Your task to perform on an android device: Check the weather Image 0: 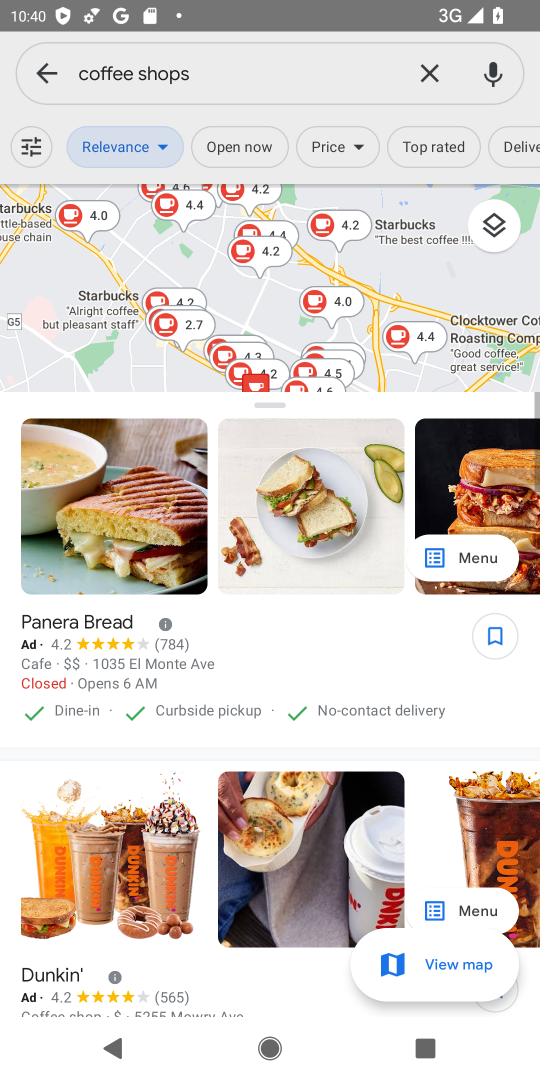
Step 0: press home button
Your task to perform on an android device: Check the weather Image 1: 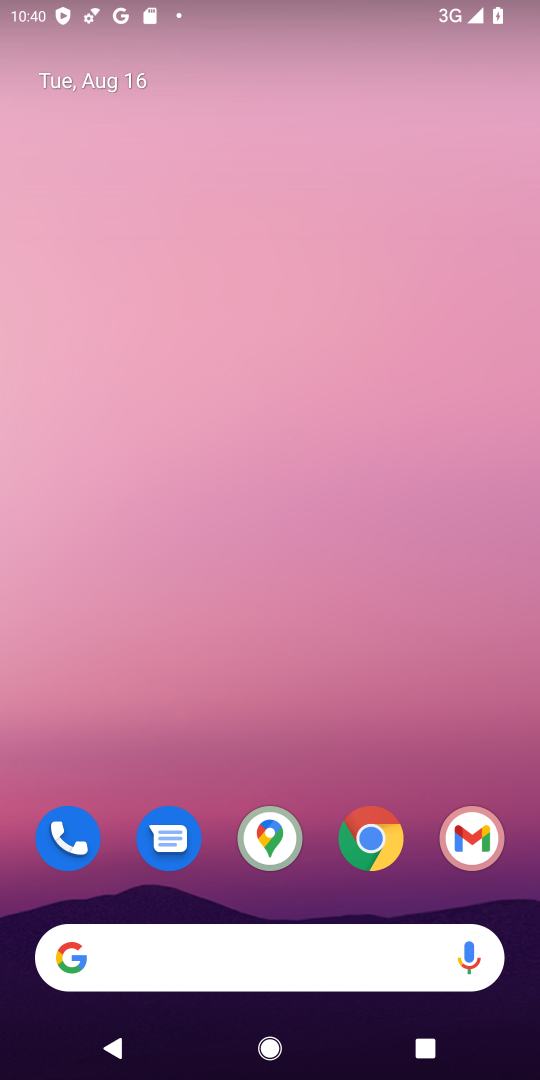
Step 1: click (64, 974)
Your task to perform on an android device: Check the weather Image 2: 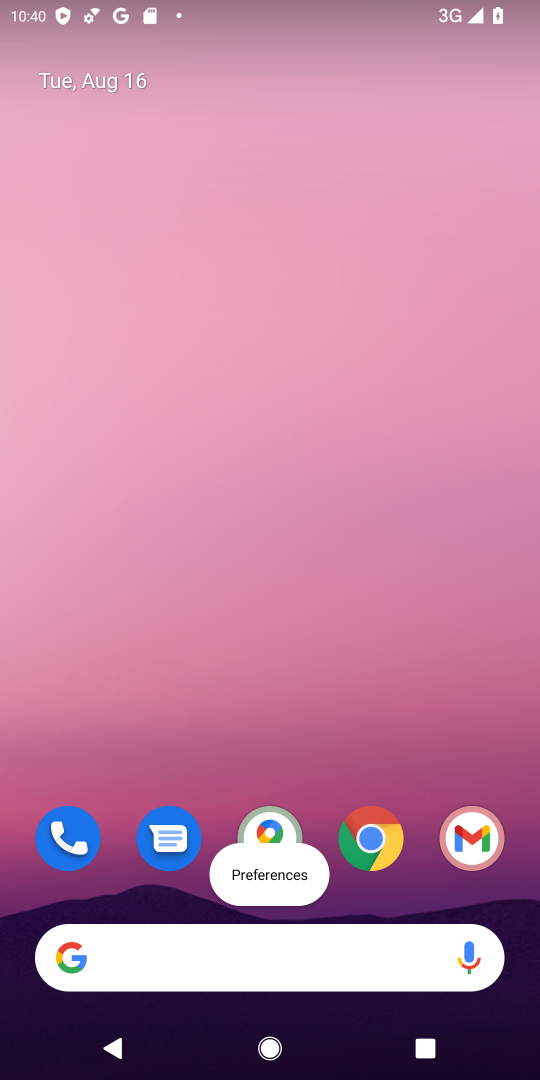
Step 2: click (72, 959)
Your task to perform on an android device: Check the weather Image 3: 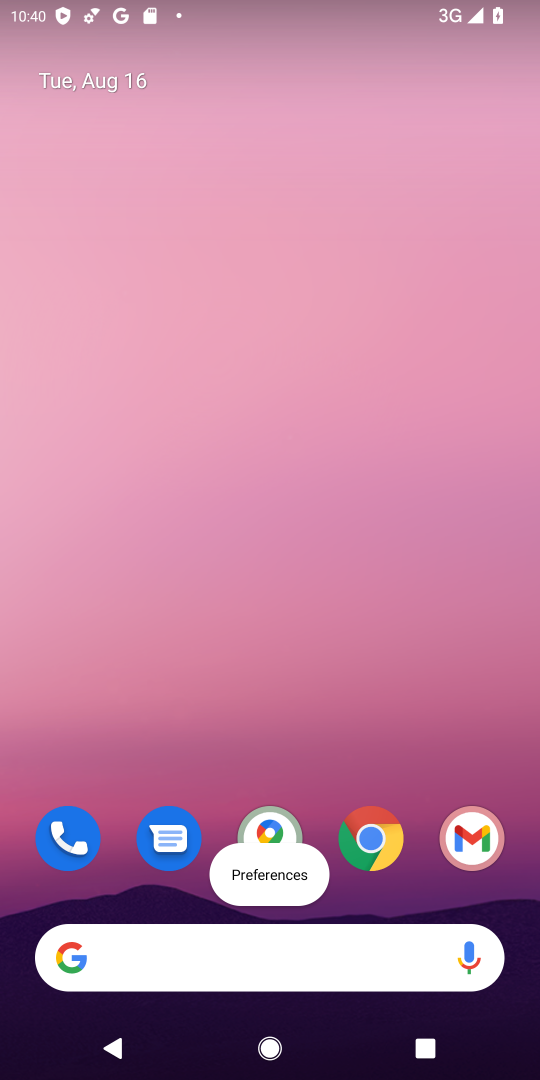
Step 3: click (72, 959)
Your task to perform on an android device: Check the weather Image 4: 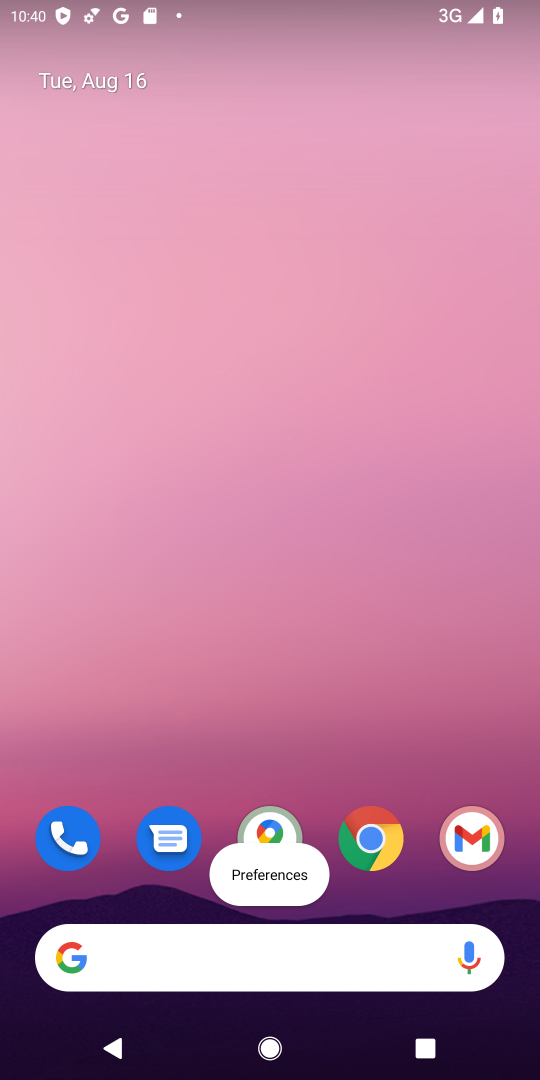
Step 4: click (72, 959)
Your task to perform on an android device: Check the weather Image 5: 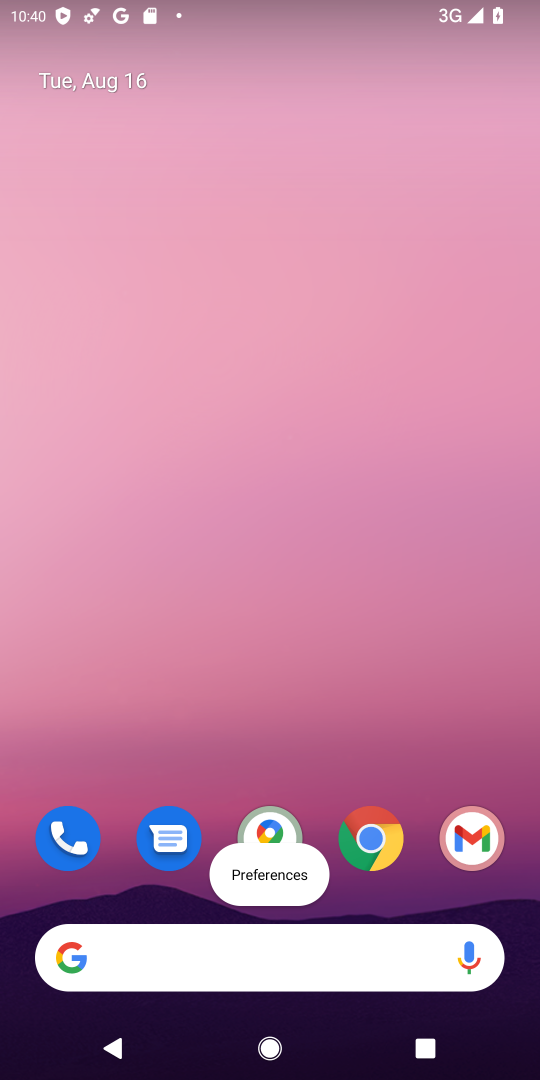
Step 5: click (65, 960)
Your task to perform on an android device: Check the weather Image 6: 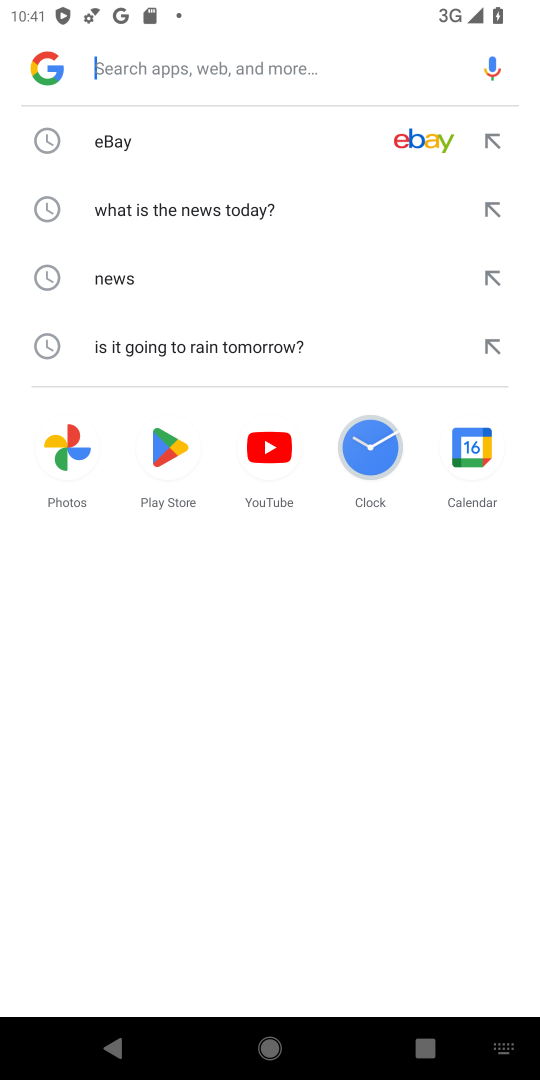
Step 6: type "weather"
Your task to perform on an android device: Check the weather Image 7: 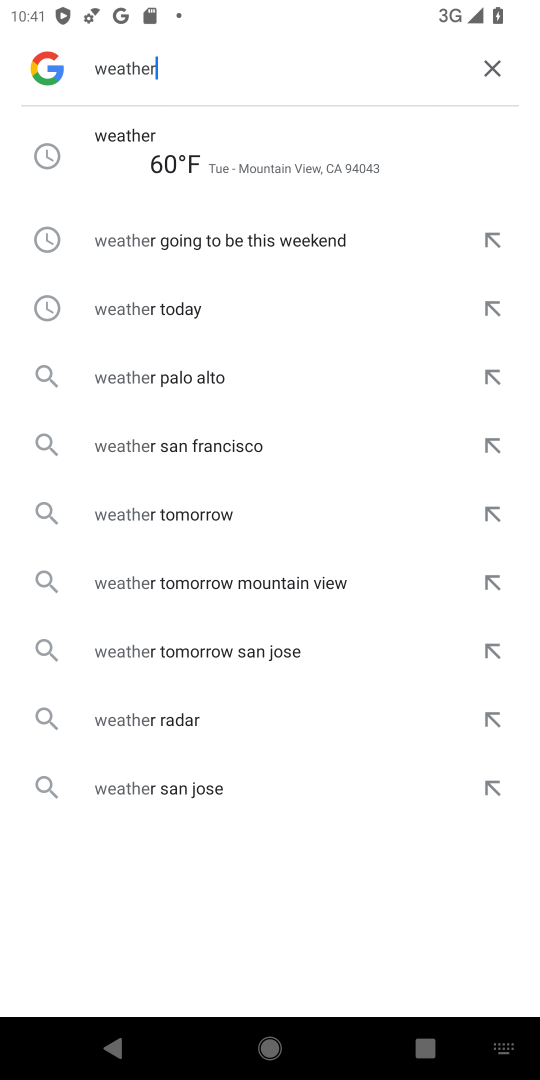
Step 7: press enter
Your task to perform on an android device: Check the weather Image 8: 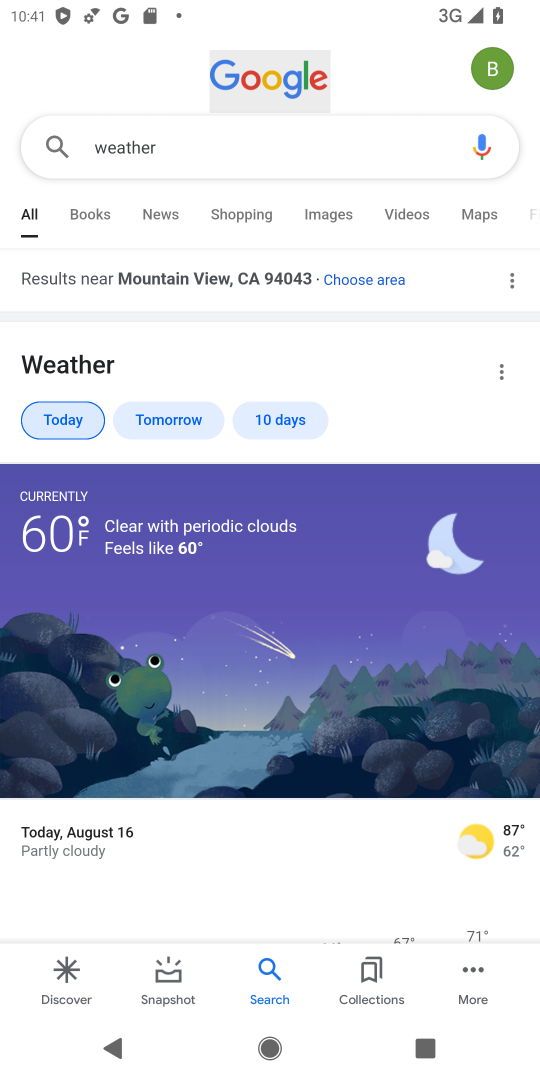
Step 8: task complete